Your task to perform on an android device: Empty the shopping cart on costco.com. Add jbl charge 4 to the cart on costco.com, then select checkout. Image 0: 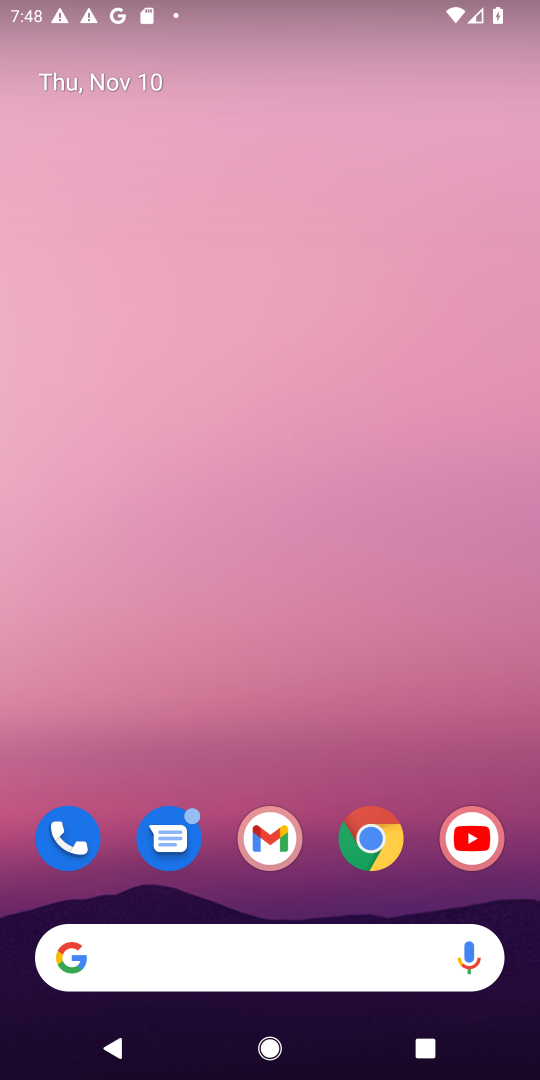
Step 0: drag from (224, 889) to (289, 137)
Your task to perform on an android device: Empty the shopping cart on costco.com. Add jbl charge 4 to the cart on costco.com, then select checkout. Image 1: 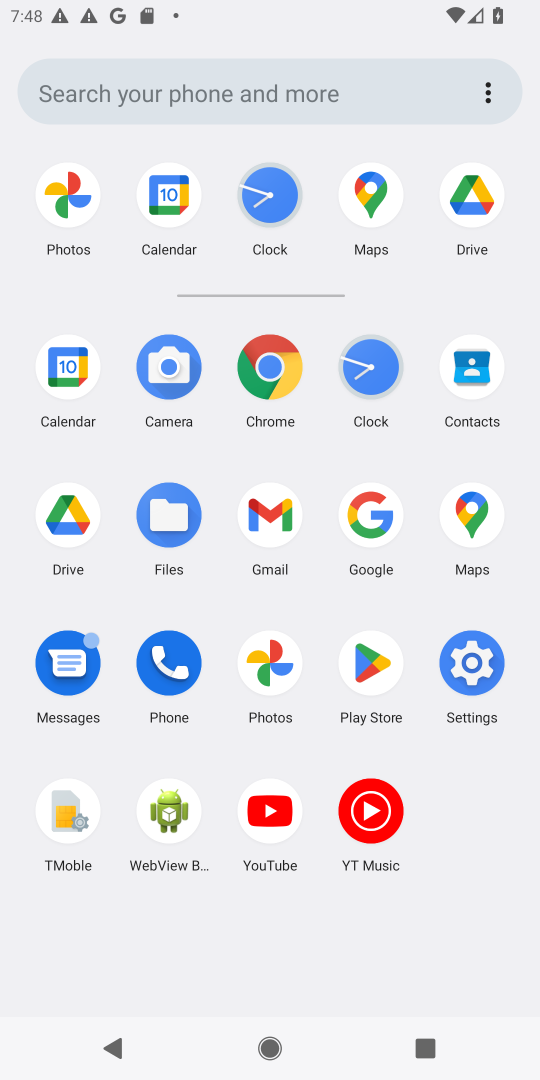
Step 1: click (266, 377)
Your task to perform on an android device: Empty the shopping cart on costco.com. Add jbl charge 4 to the cart on costco.com, then select checkout. Image 2: 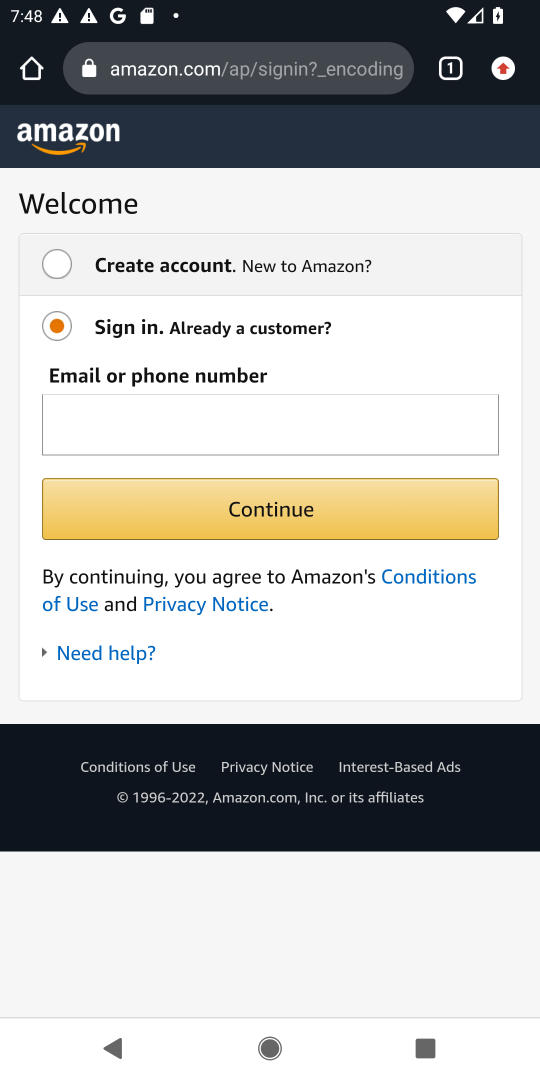
Step 2: click (269, 78)
Your task to perform on an android device: Empty the shopping cart on costco.com. Add jbl charge 4 to the cart on costco.com, then select checkout. Image 3: 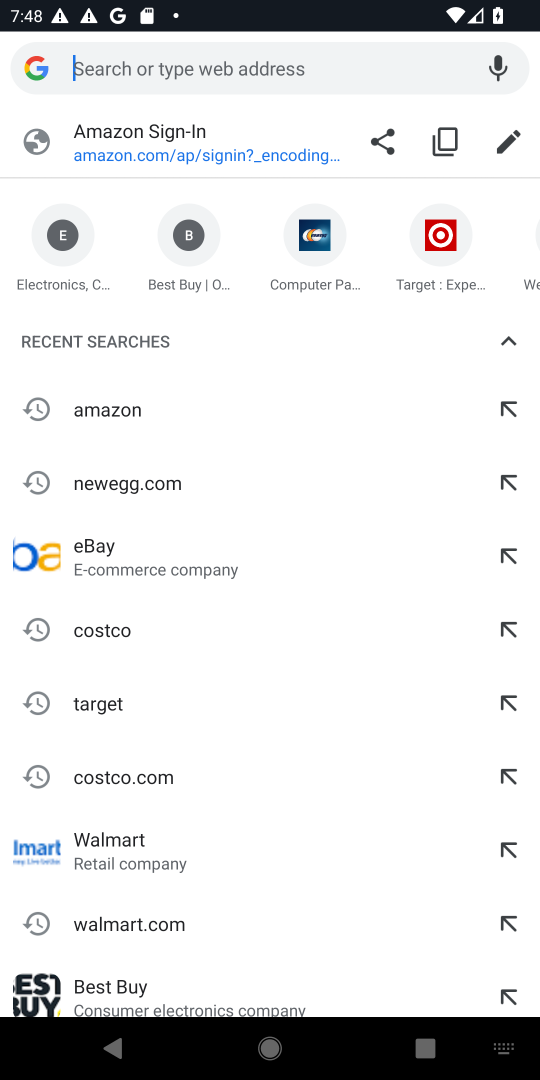
Step 3: type "costco.com"
Your task to perform on an android device: Empty the shopping cart on costco.com. Add jbl charge 4 to the cart on costco.com, then select checkout. Image 4: 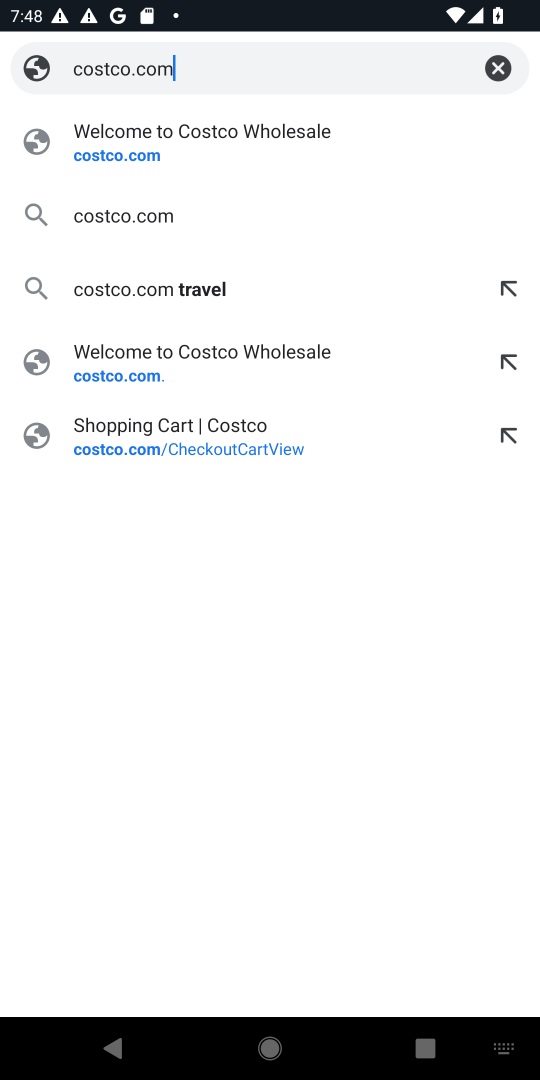
Step 4: press enter
Your task to perform on an android device: Empty the shopping cart on costco.com. Add jbl charge 4 to the cart on costco.com, then select checkout. Image 5: 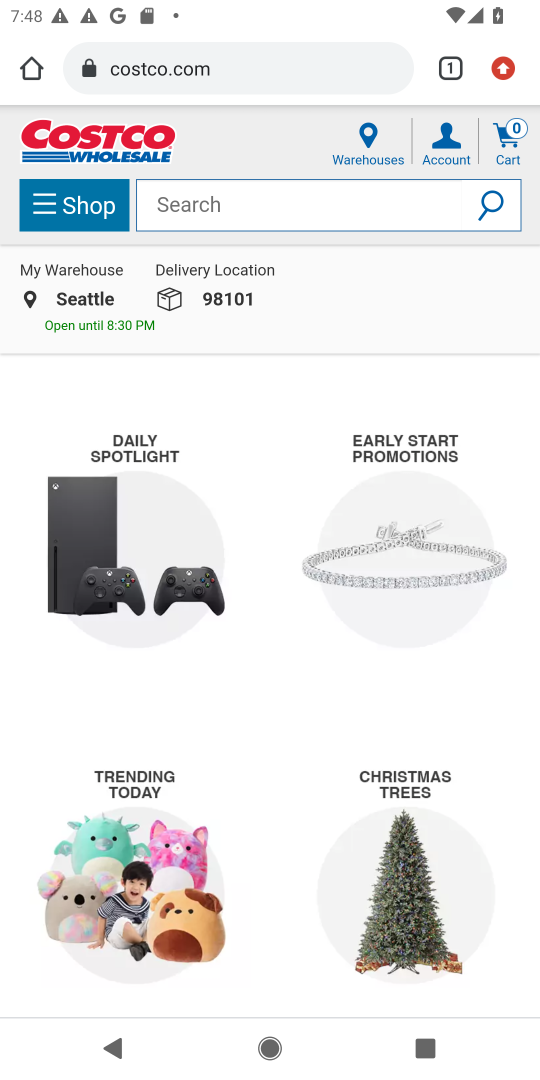
Step 5: click (330, 202)
Your task to perform on an android device: Empty the shopping cart on costco.com. Add jbl charge 4 to the cart on costco.com, then select checkout. Image 6: 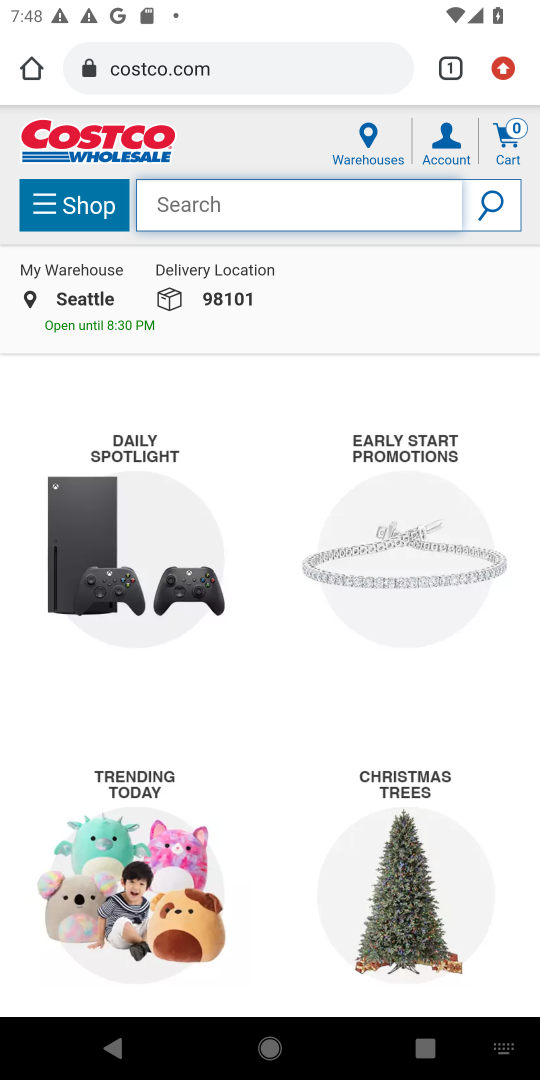
Step 6: type "jbl charge 4"
Your task to perform on an android device: Empty the shopping cart on costco.com. Add jbl charge 4 to the cart on costco.com, then select checkout. Image 7: 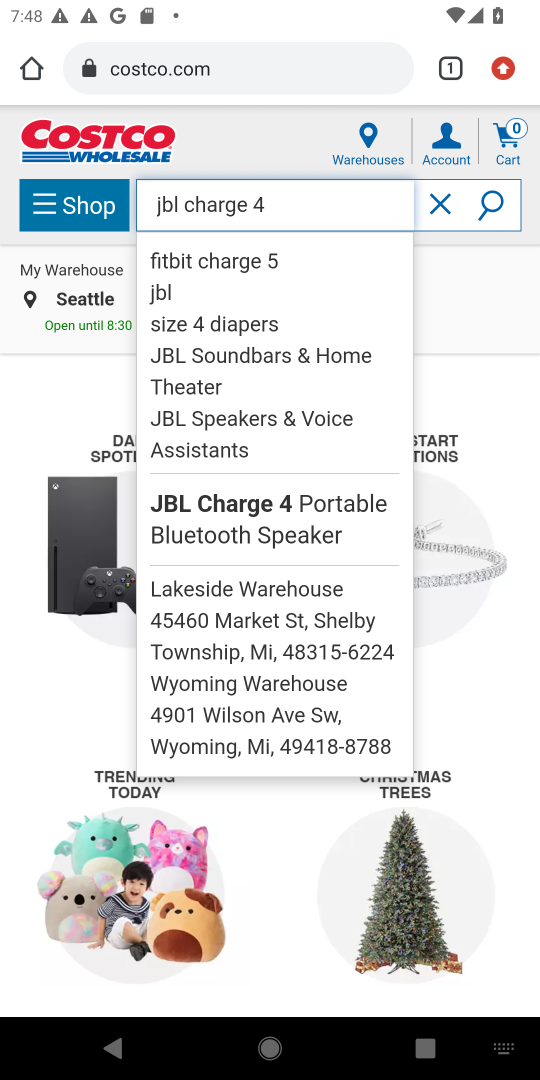
Step 7: press enter
Your task to perform on an android device: Empty the shopping cart on costco.com. Add jbl charge 4 to the cart on costco.com, then select checkout. Image 8: 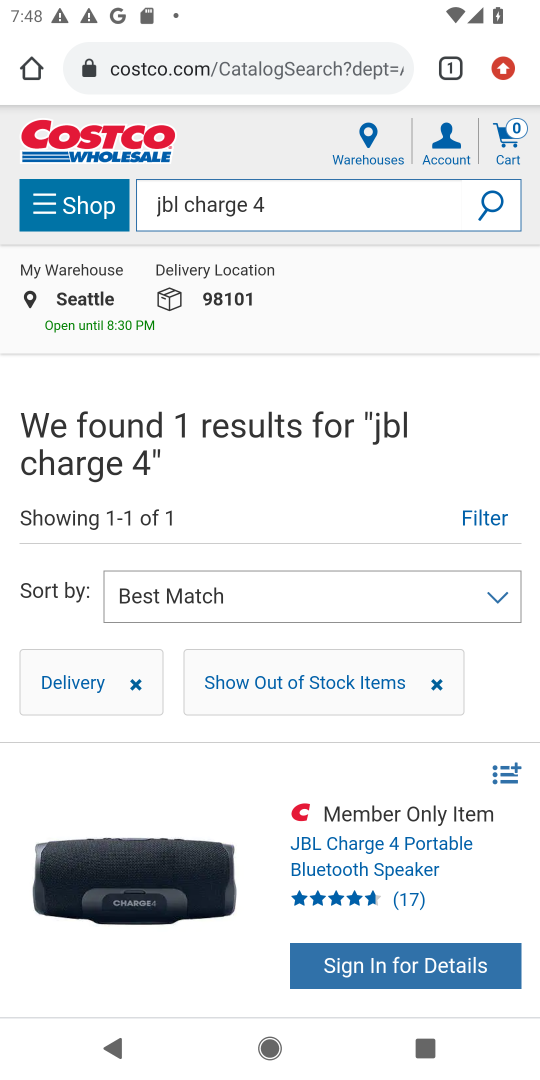
Step 8: drag from (396, 929) to (352, 452)
Your task to perform on an android device: Empty the shopping cart on costco.com. Add jbl charge 4 to the cart on costco.com, then select checkout. Image 9: 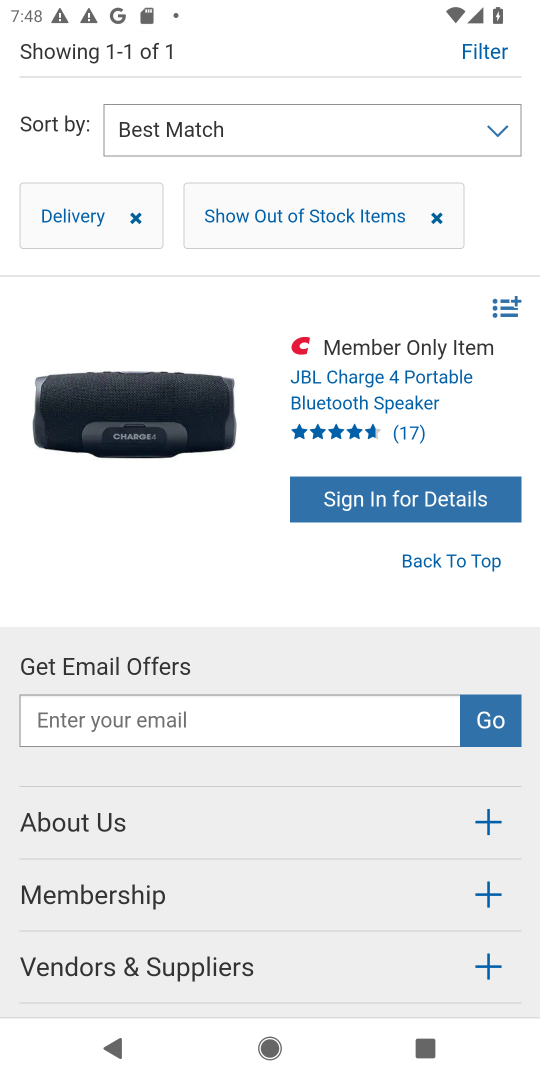
Step 9: click (382, 507)
Your task to perform on an android device: Empty the shopping cart on costco.com. Add jbl charge 4 to the cart on costco.com, then select checkout. Image 10: 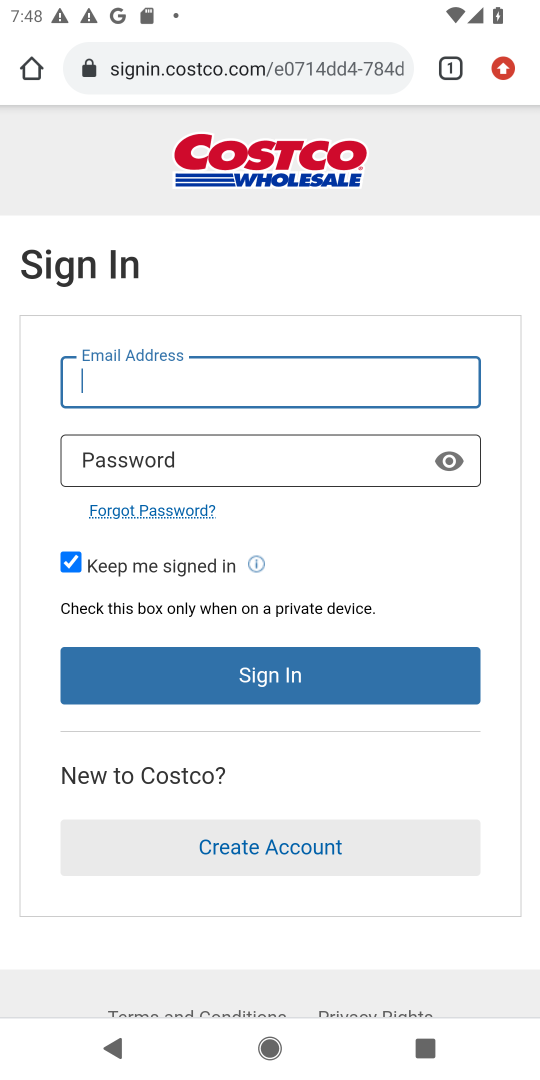
Step 10: task complete